Your task to perform on an android device: Do I have any events tomorrow? Image 0: 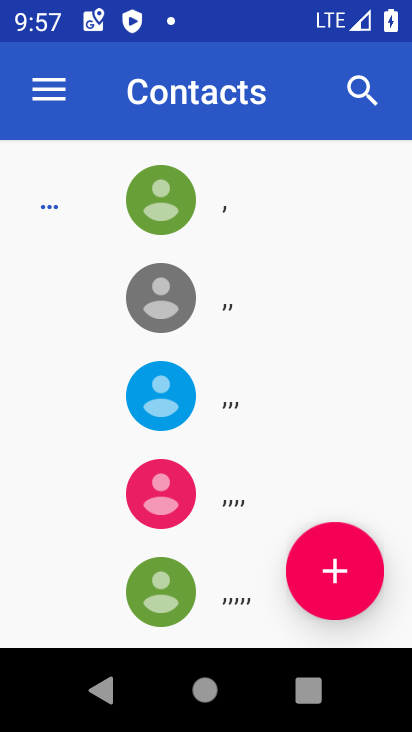
Step 0: press home button
Your task to perform on an android device: Do I have any events tomorrow? Image 1: 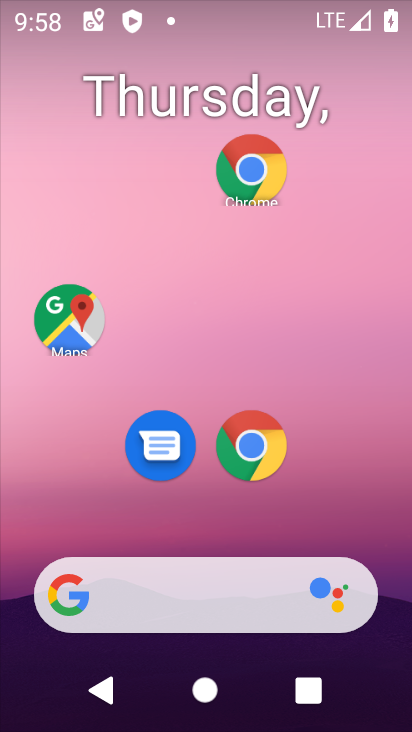
Step 1: drag from (226, 537) to (145, 1)
Your task to perform on an android device: Do I have any events tomorrow? Image 2: 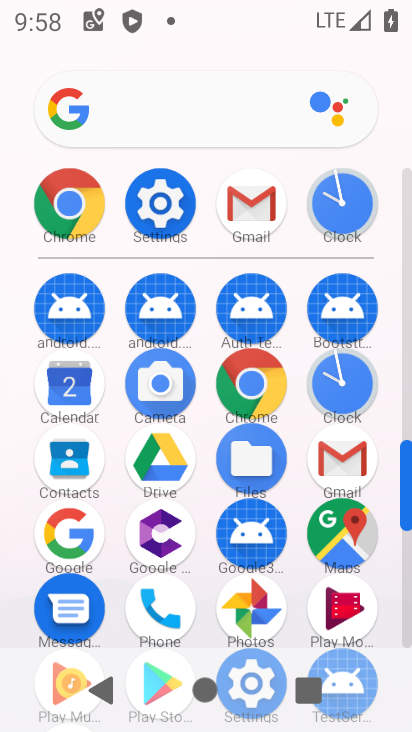
Step 2: click (63, 392)
Your task to perform on an android device: Do I have any events tomorrow? Image 3: 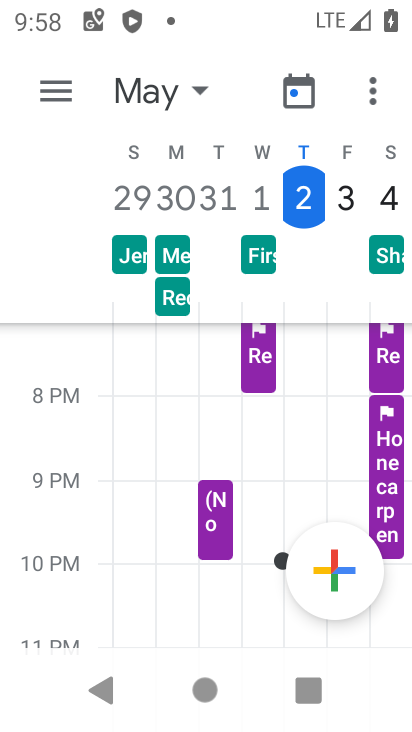
Step 3: click (335, 194)
Your task to perform on an android device: Do I have any events tomorrow? Image 4: 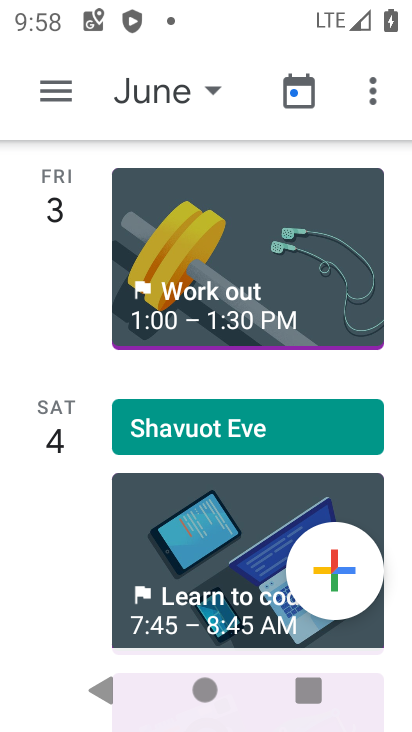
Step 4: task complete